Your task to perform on an android device: Open Google Chrome Image 0: 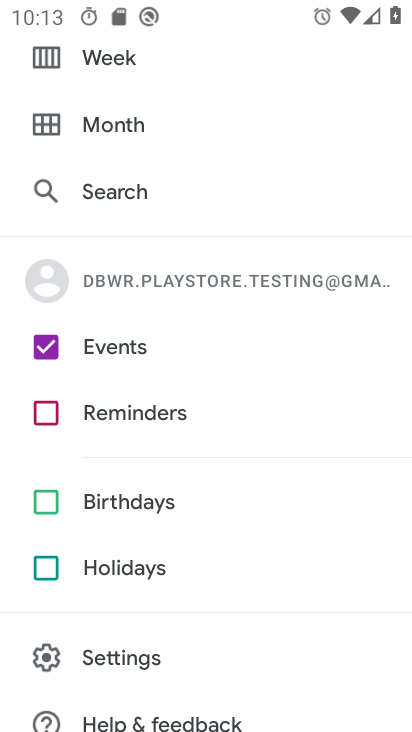
Step 0: press home button
Your task to perform on an android device: Open Google Chrome Image 1: 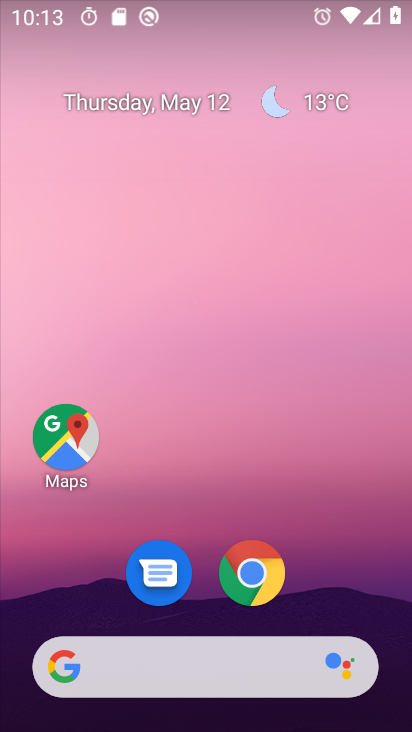
Step 1: click (255, 571)
Your task to perform on an android device: Open Google Chrome Image 2: 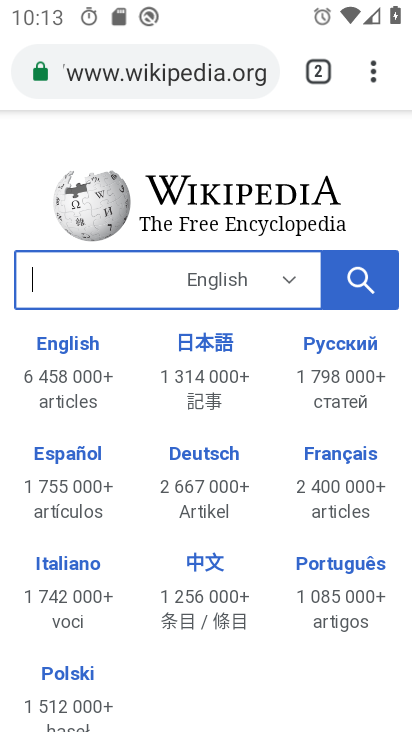
Step 2: task complete